Your task to perform on an android device: Go to Amazon Image 0: 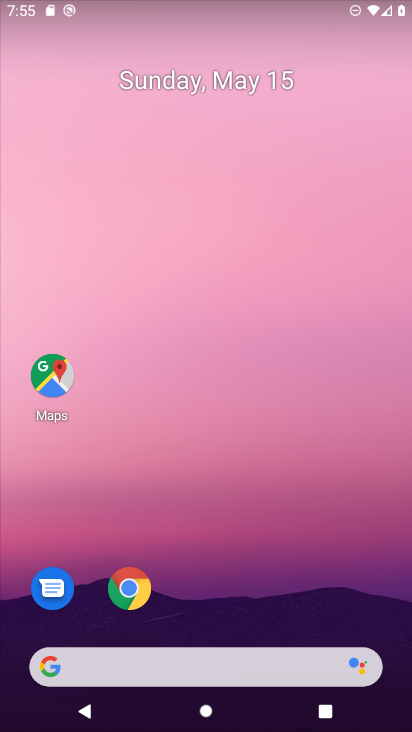
Step 0: press home button
Your task to perform on an android device: Go to Amazon Image 1: 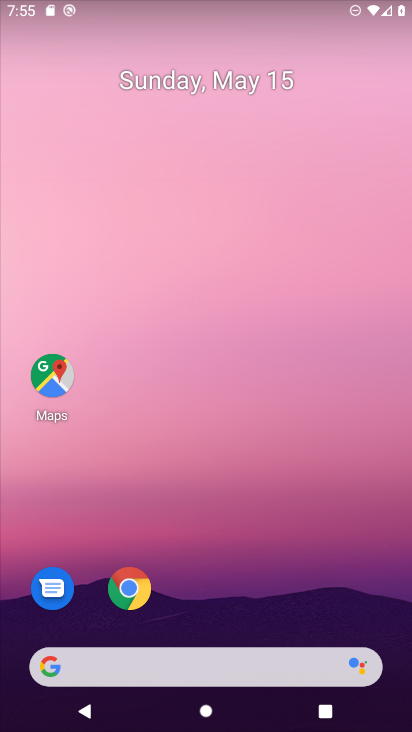
Step 1: click (129, 586)
Your task to perform on an android device: Go to Amazon Image 2: 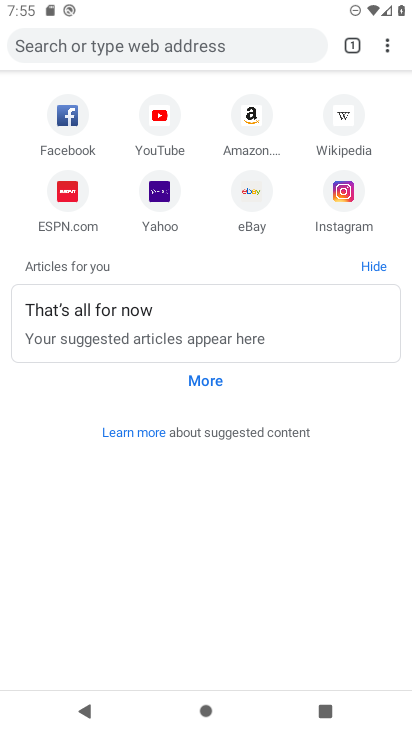
Step 2: click (255, 117)
Your task to perform on an android device: Go to Amazon Image 3: 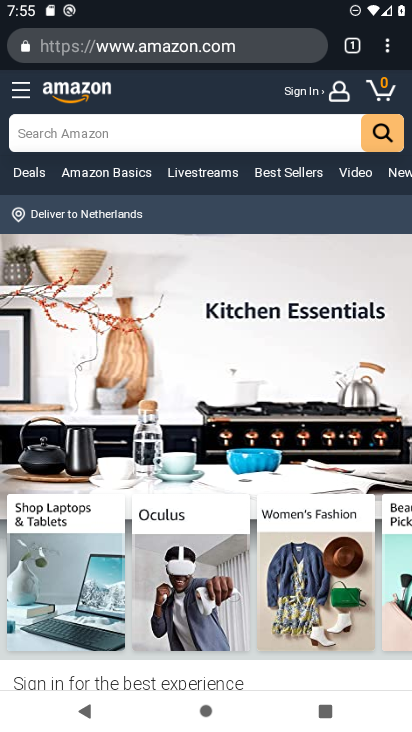
Step 3: task complete